Your task to perform on an android device: Open wifi settings Image 0: 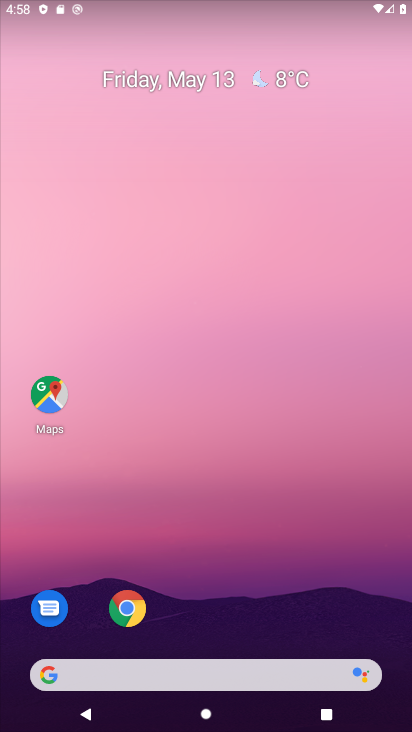
Step 0: drag from (270, 622) to (343, 180)
Your task to perform on an android device: Open wifi settings Image 1: 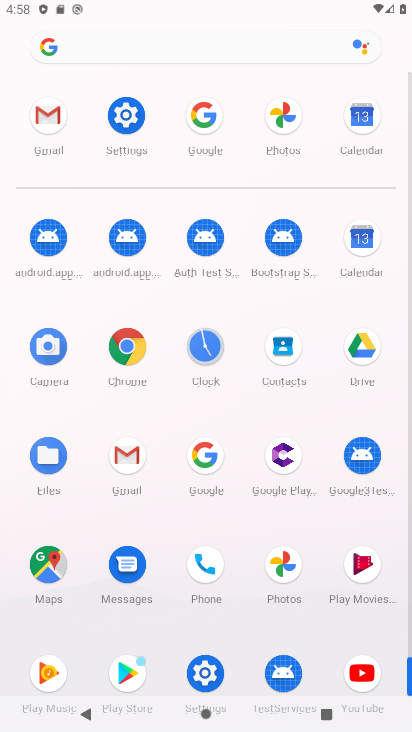
Step 1: click (205, 673)
Your task to perform on an android device: Open wifi settings Image 2: 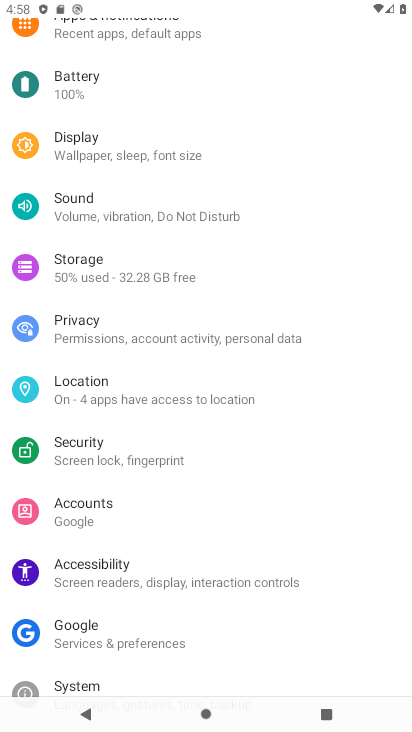
Step 2: drag from (260, 240) to (304, 340)
Your task to perform on an android device: Open wifi settings Image 3: 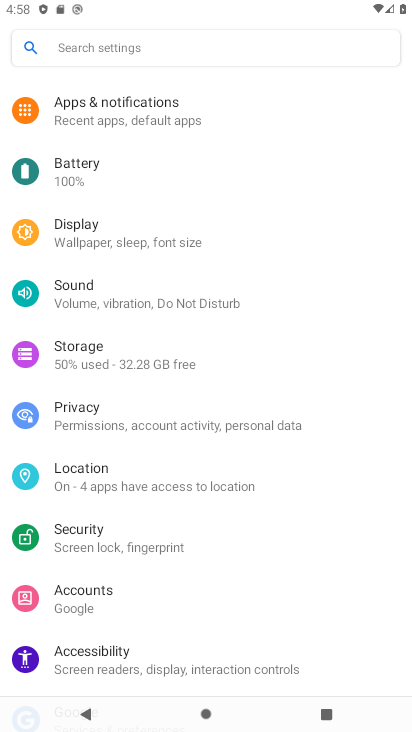
Step 3: drag from (173, 163) to (184, 358)
Your task to perform on an android device: Open wifi settings Image 4: 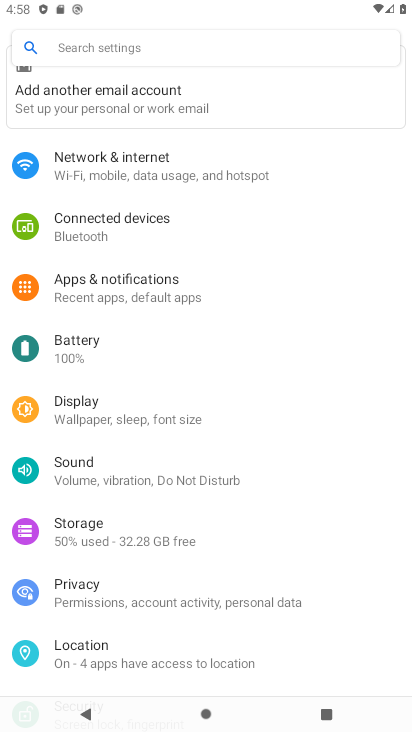
Step 4: click (121, 166)
Your task to perform on an android device: Open wifi settings Image 5: 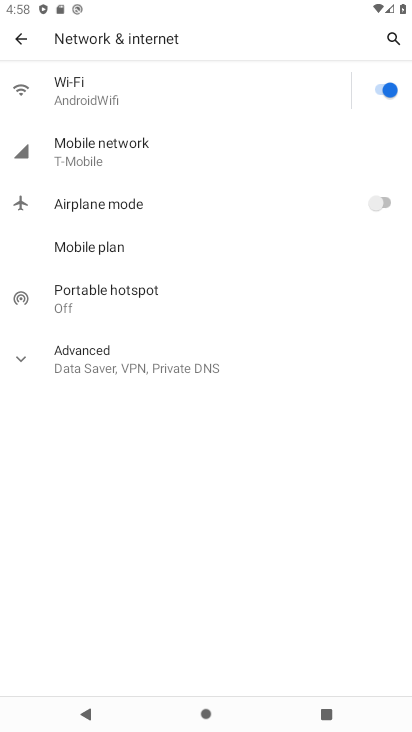
Step 5: click (105, 100)
Your task to perform on an android device: Open wifi settings Image 6: 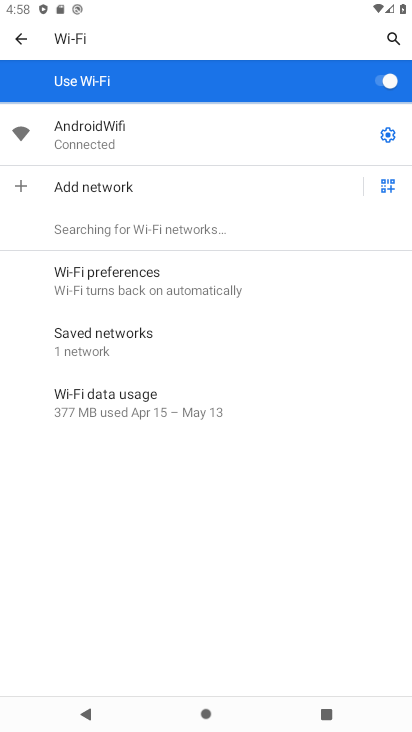
Step 6: click (385, 131)
Your task to perform on an android device: Open wifi settings Image 7: 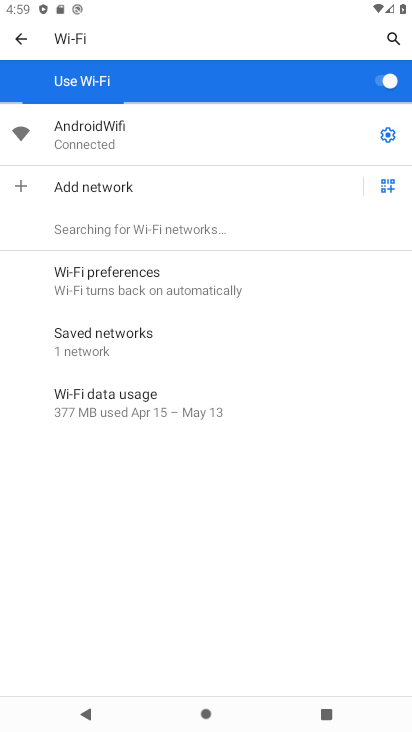
Step 7: click (391, 134)
Your task to perform on an android device: Open wifi settings Image 8: 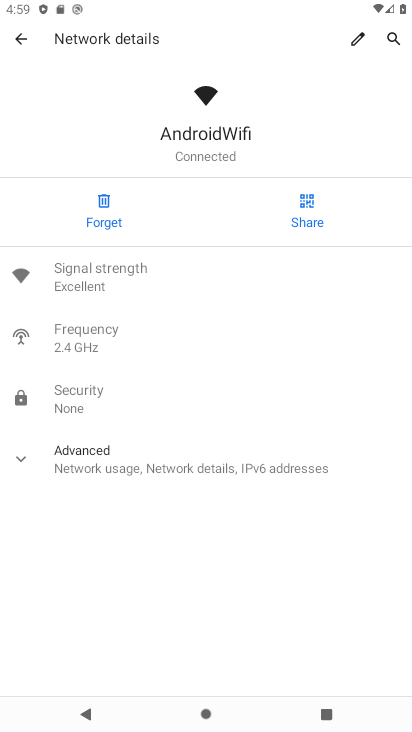
Step 8: task complete